Your task to perform on an android device: empty trash in google photos Image 0: 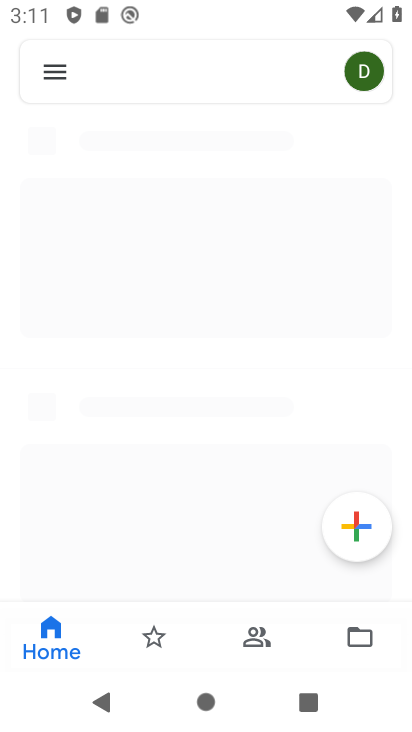
Step 0: drag from (328, 549) to (323, 155)
Your task to perform on an android device: empty trash in google photos Image 1: 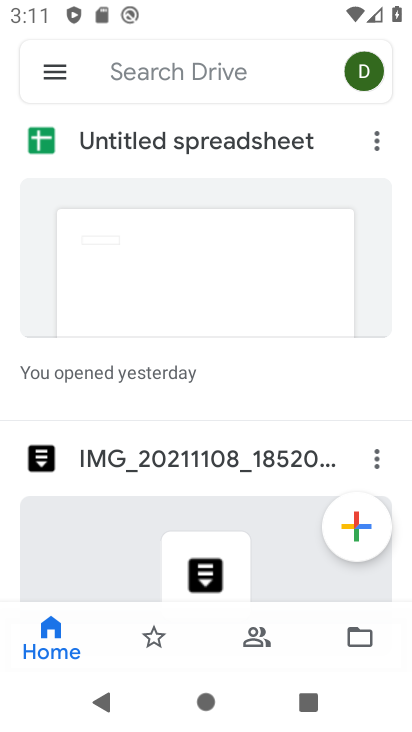
Step 1: press home button
Your task to perform on an android device: empty trash in google photos Image 2: 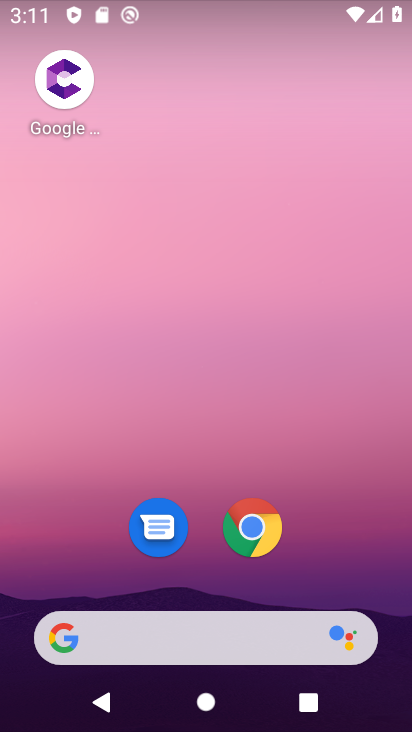
Step 2: drag from (346, 544) to (362, 129)
Your task to perform on an android device: empty trash in google photos Image 3: 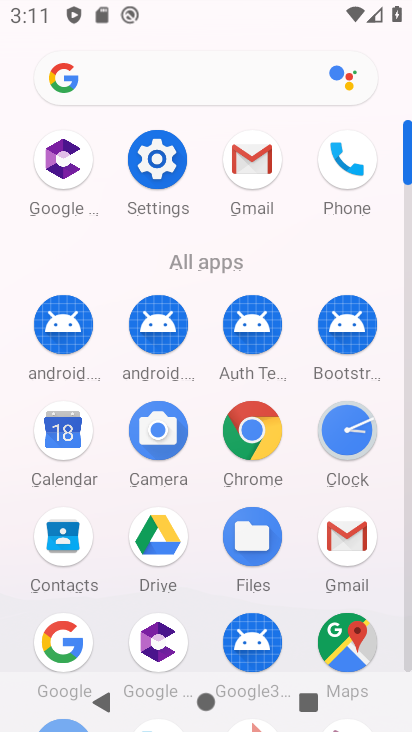
Step 3: drag from (196, 629) to (209, 223)
Your task to perform on an android device: empty trash in google photos Image 4: 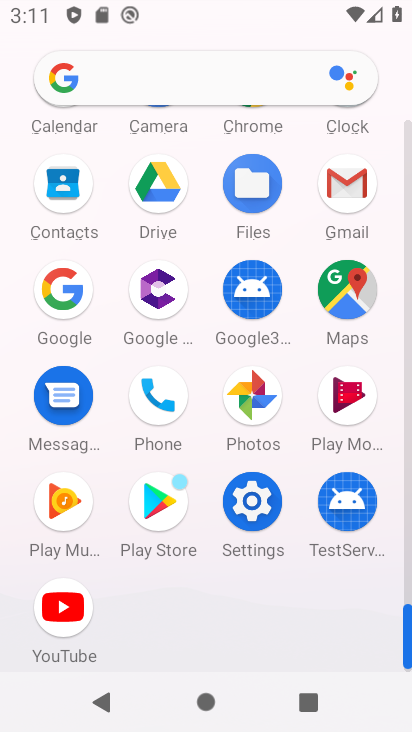
Step 4: click (248, 410)
Your task to perform on an android device: empty trash in google photos Image 5: 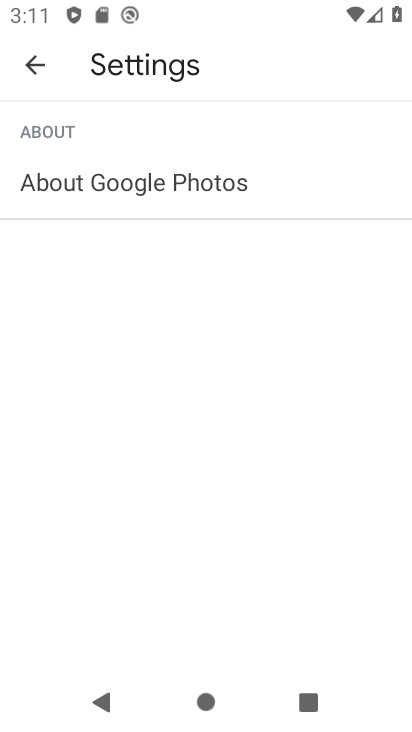
Step 5: press back button
Your task to perform on an android device: empty trash in google photos Image 6: 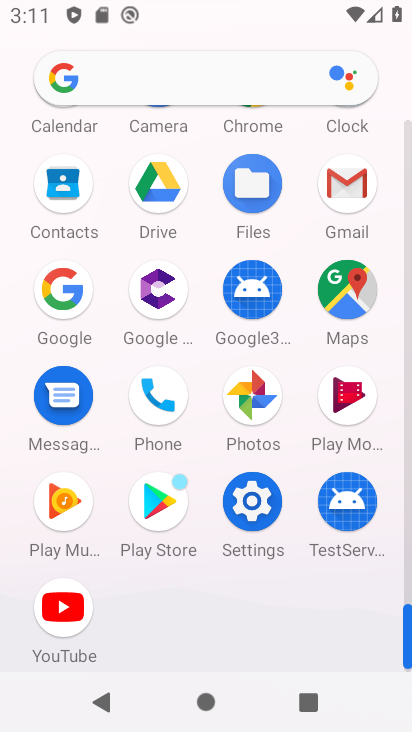
Step 6: click (236, 413)
Your task to perform on an android device: empty trash in google photos Image 7: 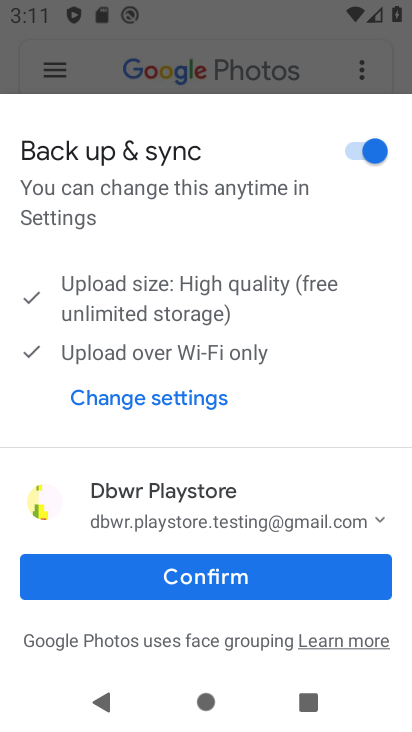
Step 7: click (255, 578)
Your task to perform on an android device: empty trash in google photos Image 8: 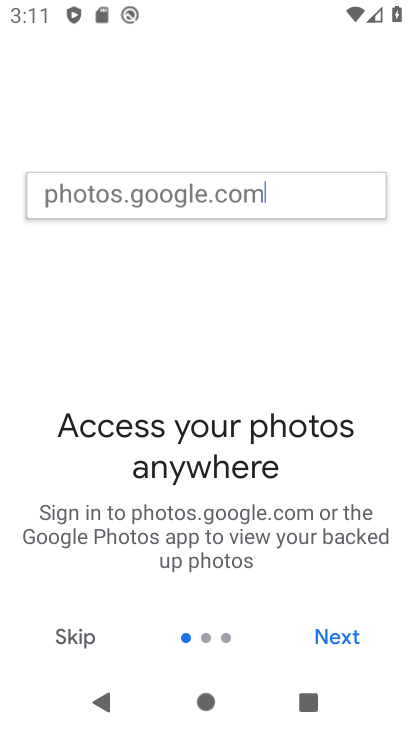
Step 8: click (84, 642)
Your task to perform on an android device: empty trash in google photos Image 9: 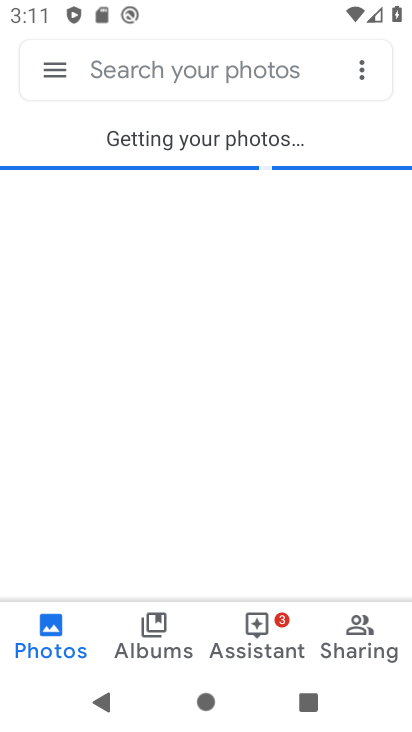
Step 9: click (62, 73)
Your task to perform on an android device: empty trash in google photos Image 10: 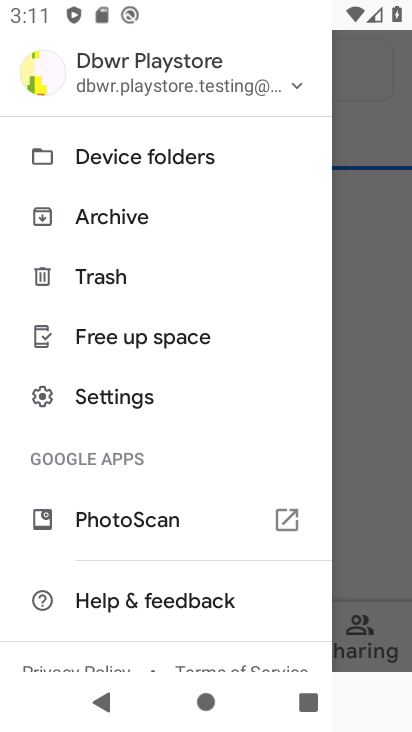
Step 10: click (121, 284)
Your task to perform on an android device: empty trash in google photos Image 11: 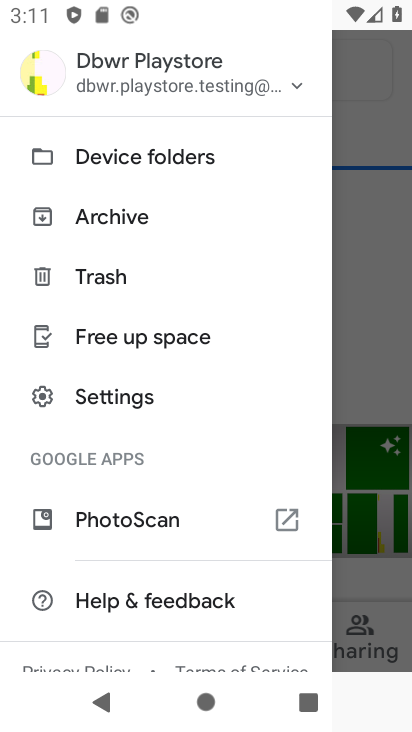
Step 11: click (105, 272)
Your task to perform on an android device: empty trash in google photos Image 12: 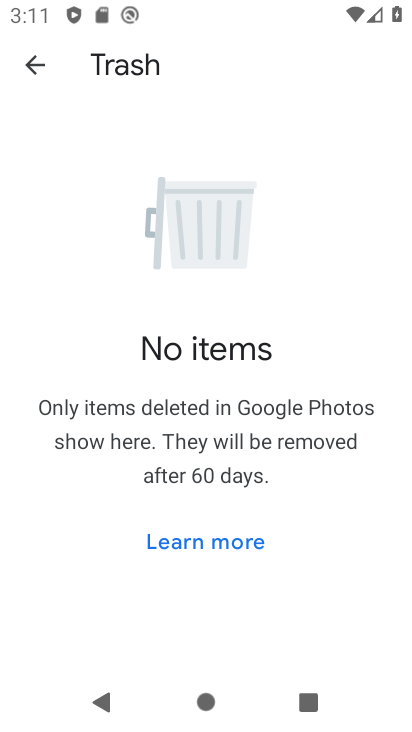
Step 12: task complete